Your task to perform on an android device: find snoozed emails in the gmail app Image 0: 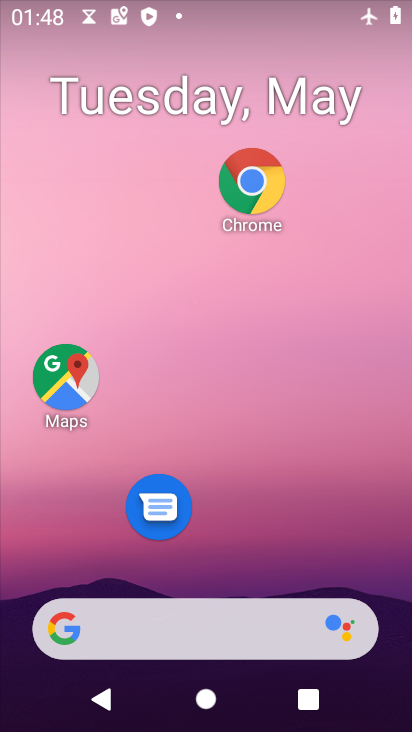
Step 0: drag from (319, 447) to (313, 350)
Your task to perform on an android device: find snoozed emails in the gmail app Image 1: 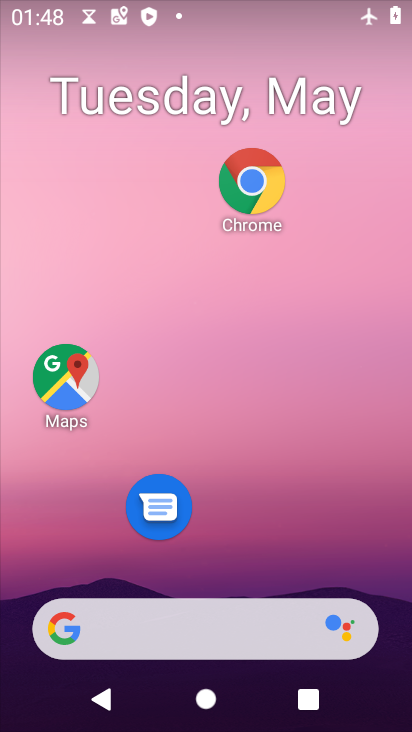
Step 1: drag from (259, 623) to (226, 320)
Your task to perform on an android device: find snoozed emails in the gmail app Image 2: 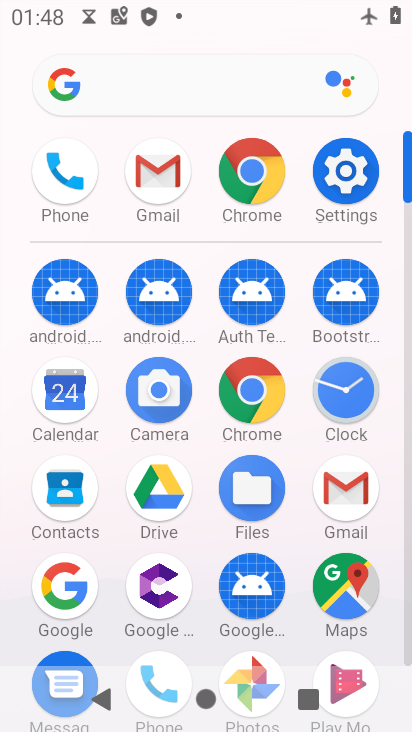
Step 2: click (346, 503)
Your task to perform on an android device: find snoozed emails in the gmail app Image 3: 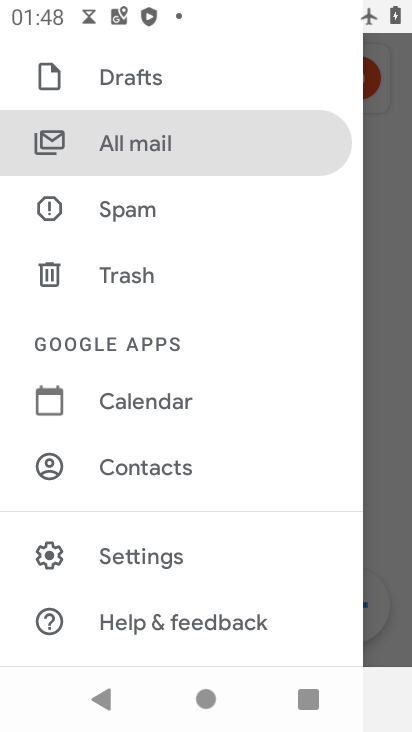
Step 3: drag from (139, 100) to (151, 439)
Your task to perform on an android device: find snoozed emails in the gmail app Image 4: 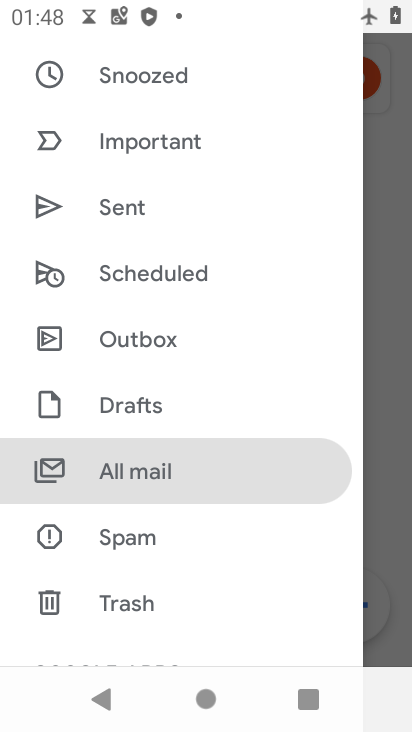
Step 4: drag from (122, 135) to (152, 353)
Your task to perform on an android device: find snoozed emails in the gmail app Image 5: 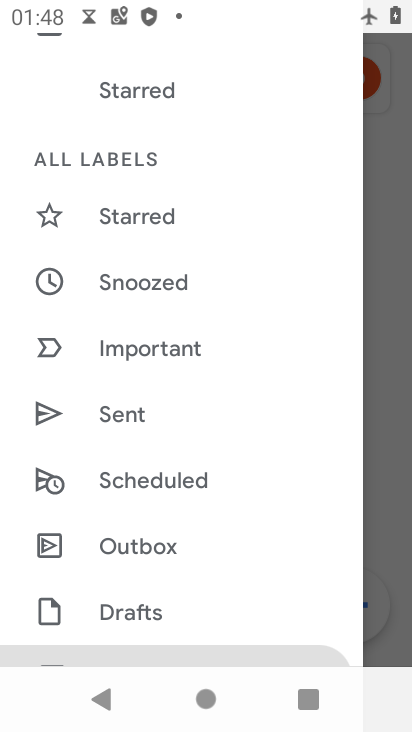
Step 5: click (143, 267)
Your task to perform on an android device: find snoozed emails in the gmail app Image 6: 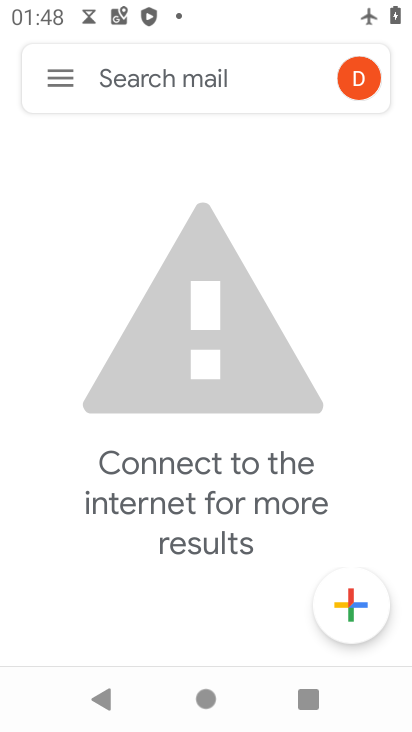
Step 6: task complete